Your task to perform on an android device: turn smart compose on in the gmail app Image 0: 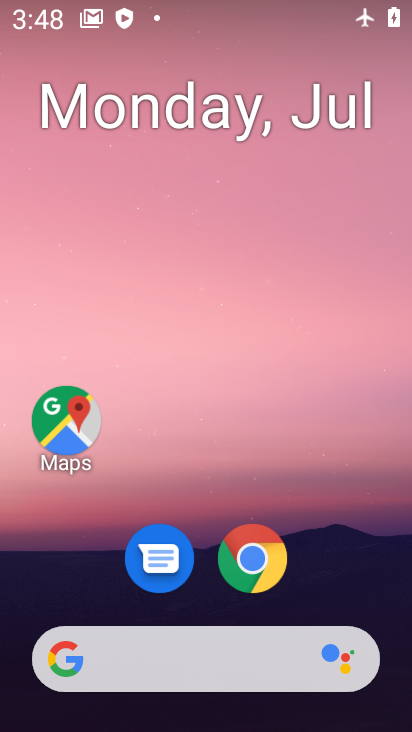
Step 0: drag from (125, 573) to (312, 14)
Your task to perform on an android device: turn smart compose on in the gmail app Image 1: 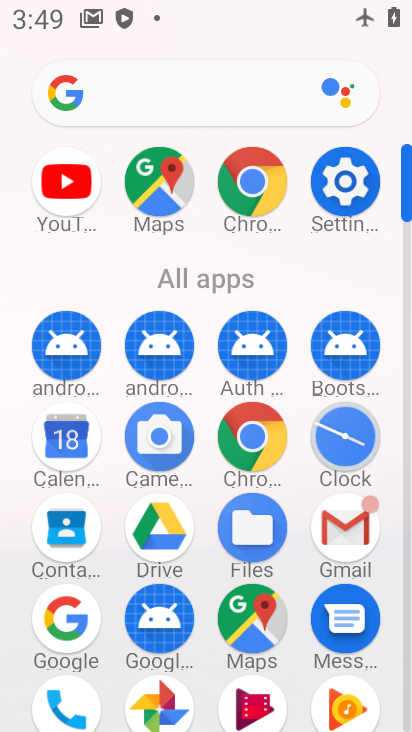
Step 1: click (360, 513)
Your task to perform on an android device: turn smart compose on in the gmail app Image 2: 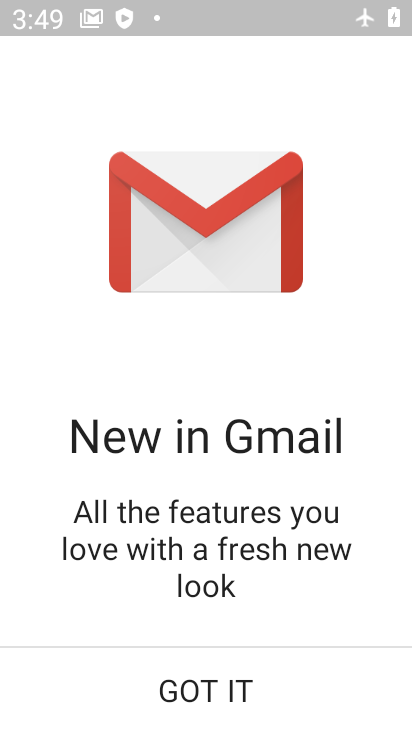
Step 2: click (214, 676)
Your task to perform on an android device: turn smart compose on in the gmail app Image 3: 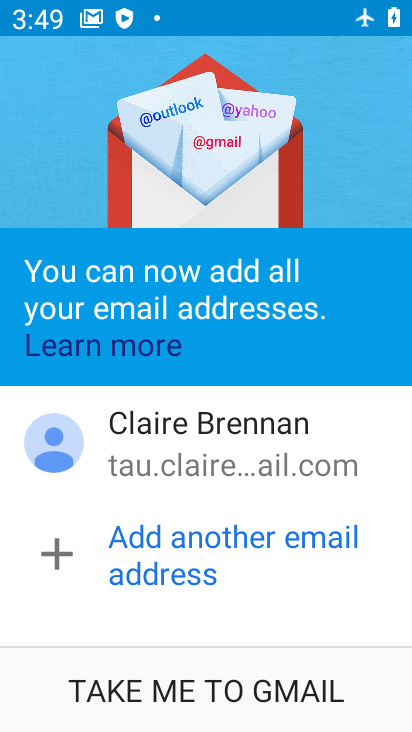
Step 3: click (139, 687)
Your task to perform on an android device: turn smart compose on in the gmail app Image 4: 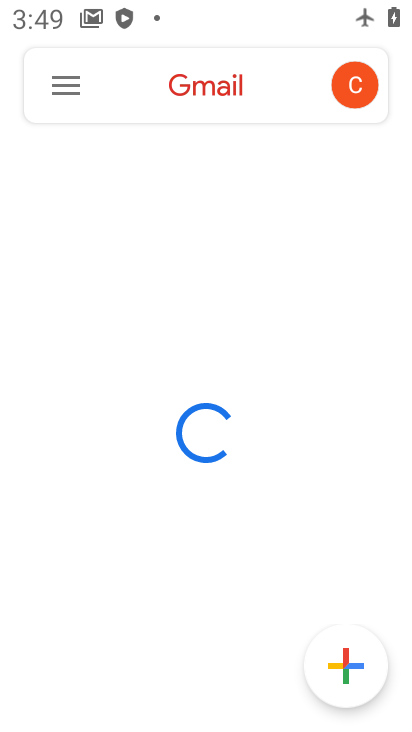
Step 4: click (59, 81)
Your task to perform on an android device: turn smart compose on in the gmail app Image 5: 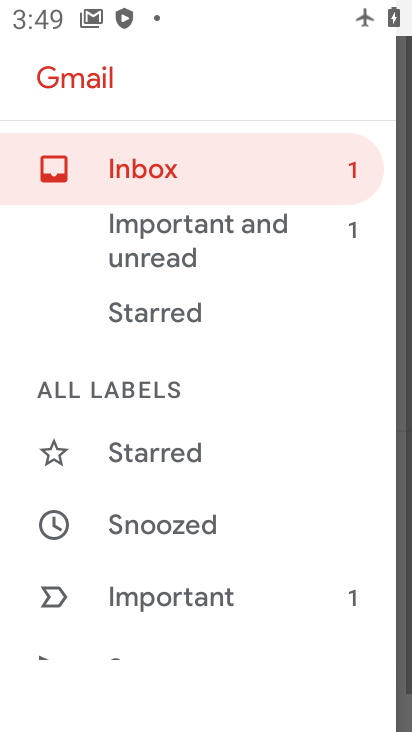
Step 5: drag from (171, 623) to (176, 210)
Your task to perform on an android device: turn smart compose on in the gmail app Image 6: 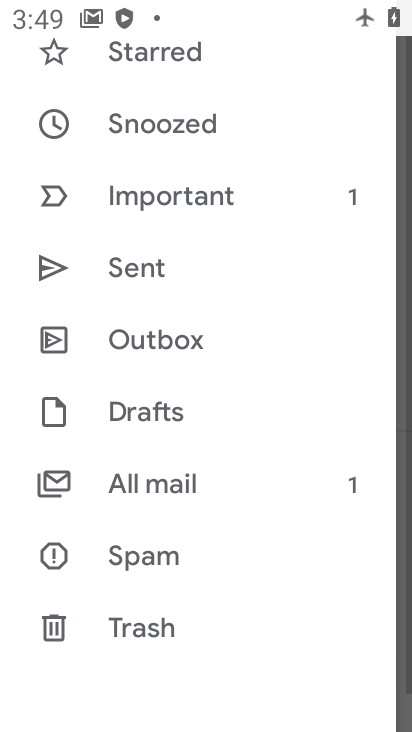
Step 6: drag from (100, 630) to (139, 100)
Your task to perform on an android device: turn smart compose on in the gmail app Image 7: 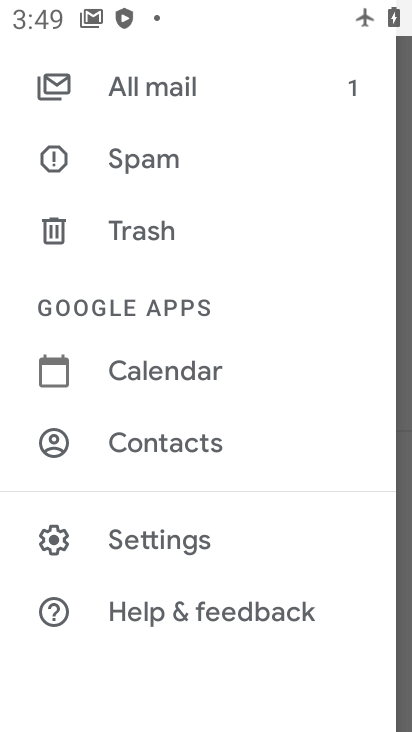
Step 7: drag from (177, 115) to (255, 26)
Your task to perform on an android device: turn smart compose on in the gmail app Image 8: 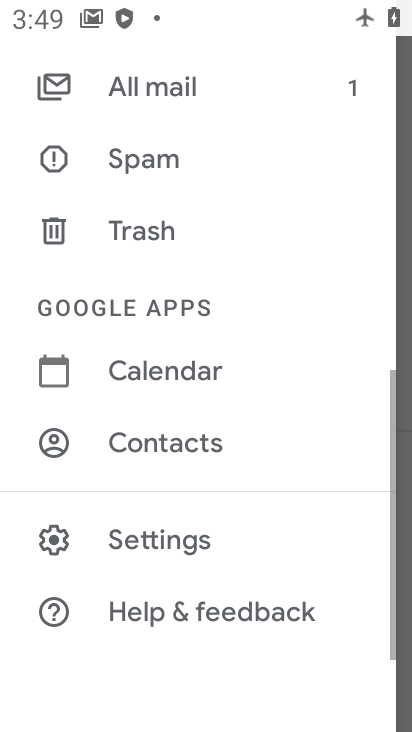
Step 8: click (130, 525)
Your task to perform on an android device: turn smart compose on in the gmail app Image 9: 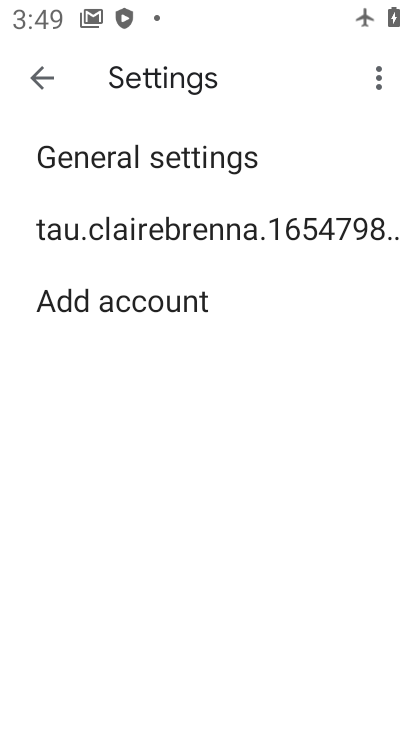
Step 9: drag from (221, 591) to (191, 91)
Your task to perform on an android device: turn smart compose on in the gmail app Image 10: 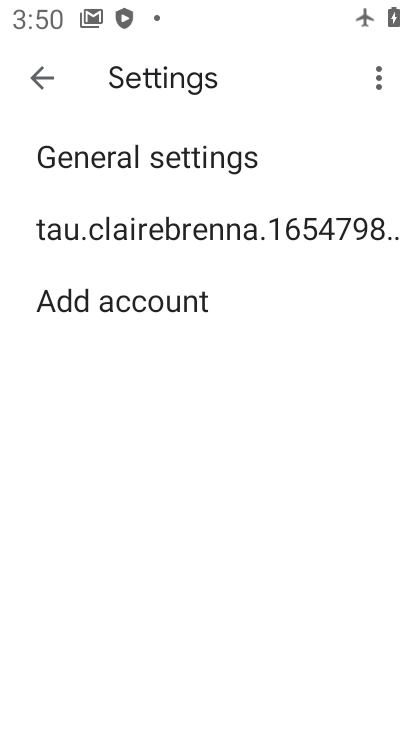
Step 10: click (127, 237)
Your task to perform on an android device: turn smart compose on in the gmail app Image 11: 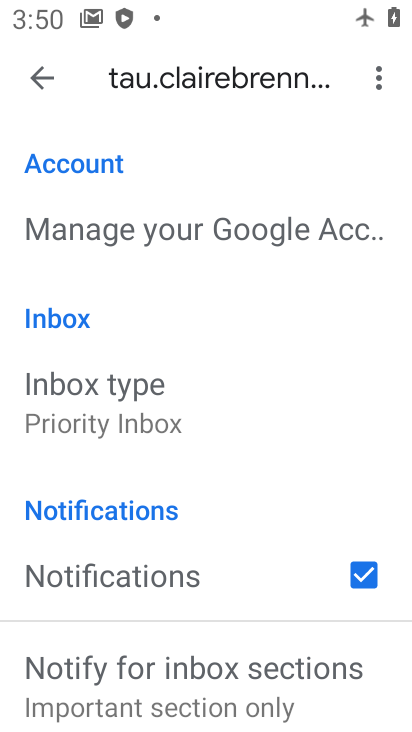
Step 11: task complete